Your task to perform on an android device: Open Google Maps and go to "Timeline" Image 0: 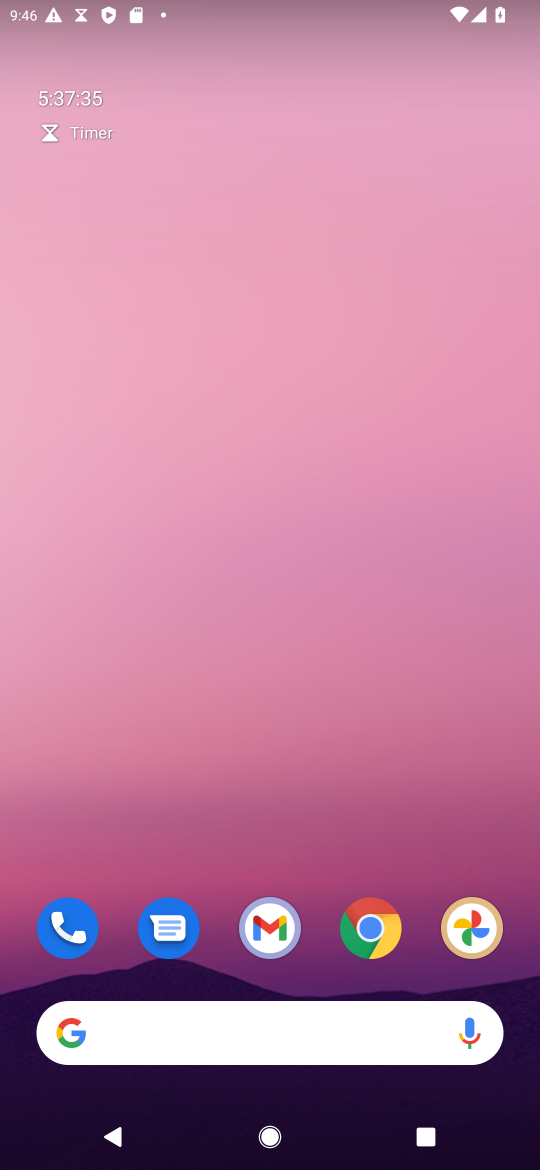
Step 0: press home button
Your task to perform on an android device: Open Google Maps and go to "Timeline" Image 1: 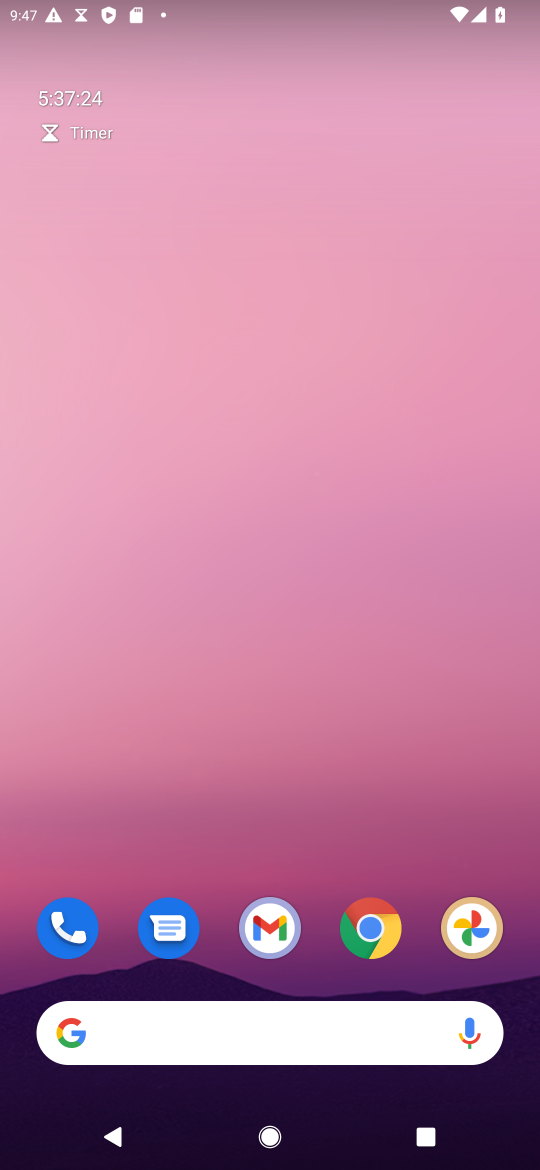
Step 1: drag from (318, 835) to (282, 168)
Your task to perform on an android device: Open Google Maps and go to "Timeline" Image 2: 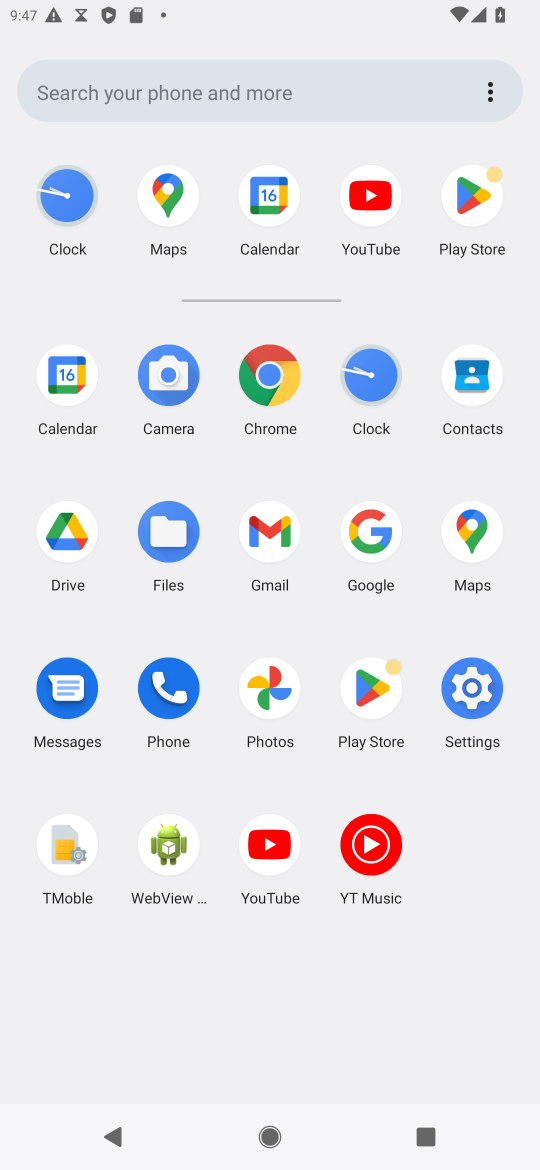
Step 2: click (462, 517)
Your task to perform on an android device: Open Google Maps and go to "Timeline" Image 3: 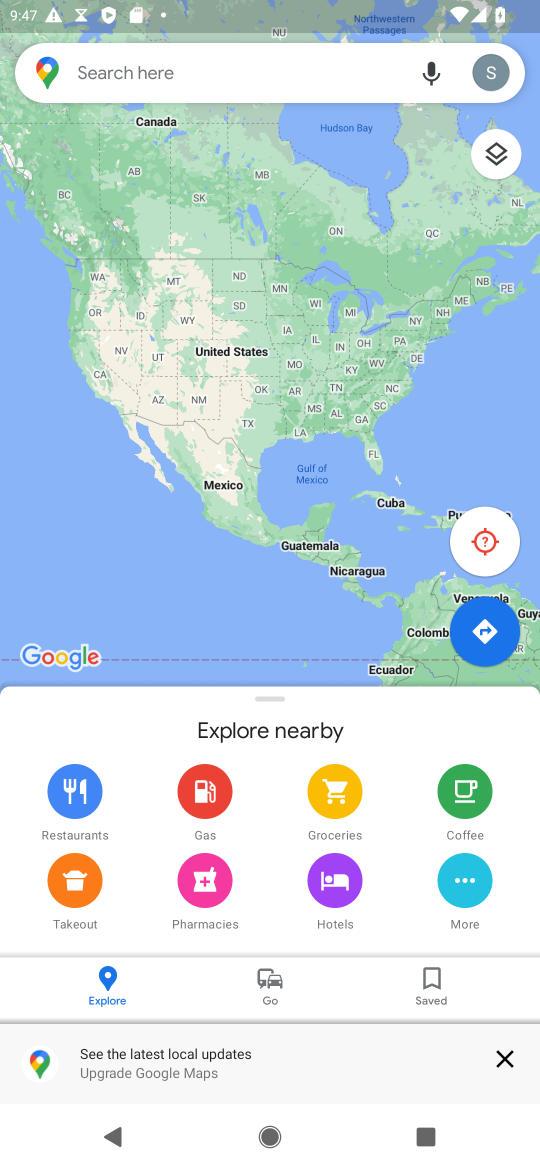
Step 3: click (479, 67)
Your task to perform on an android device: Open Google Maps and go to "Timeline" Image 4: 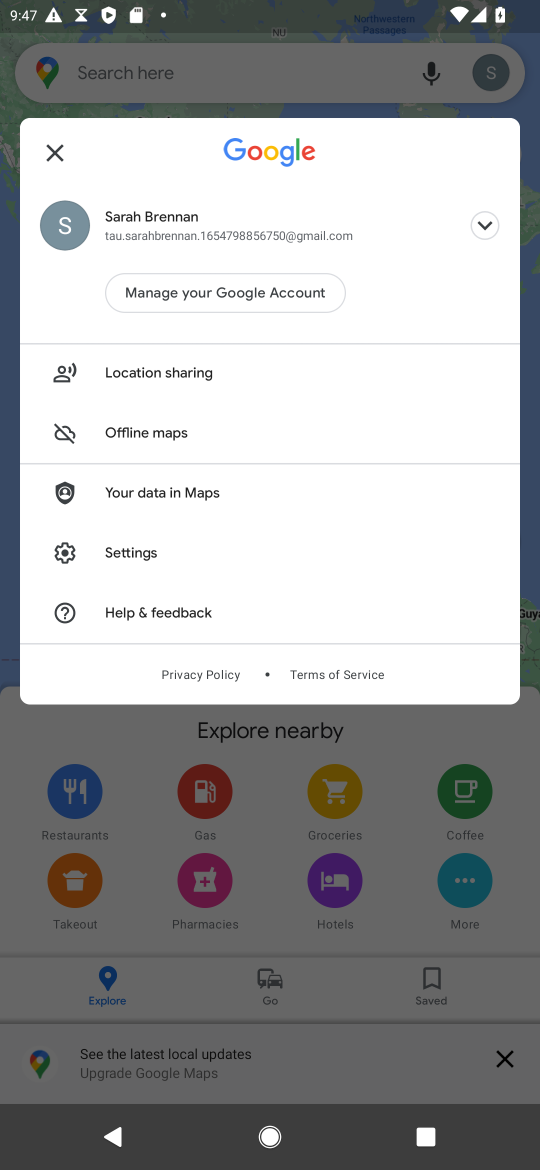
Step 4: click (35, 64)
Your task to perform on an android device: Open Google Maps and go to "Timeline" Image 5: 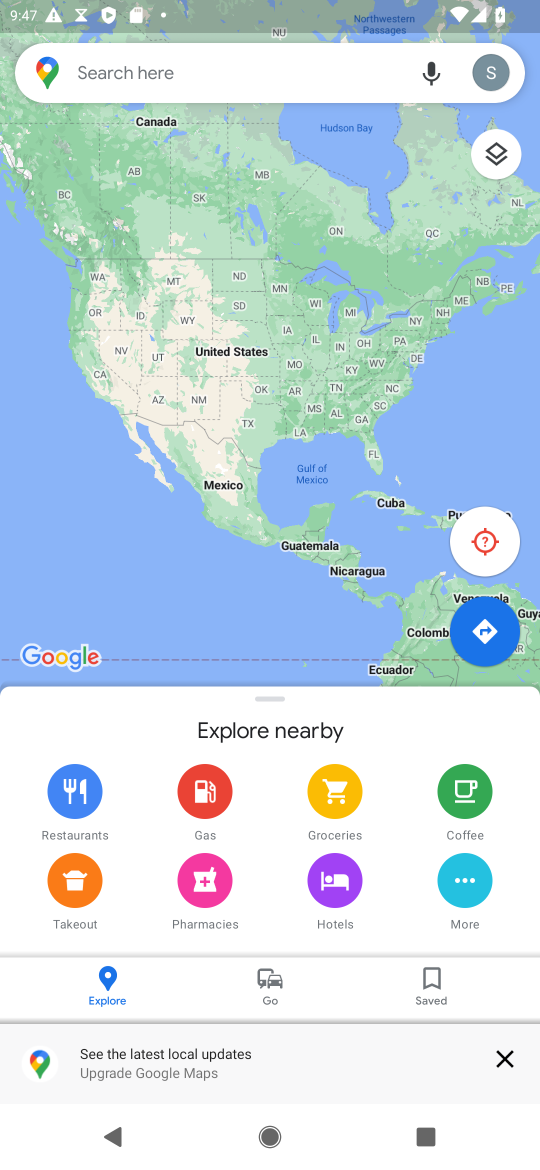
Step 5: click (49, 61)
Your task to perform on an android device: Open Google Maps and go to "Timeline" Image 6: 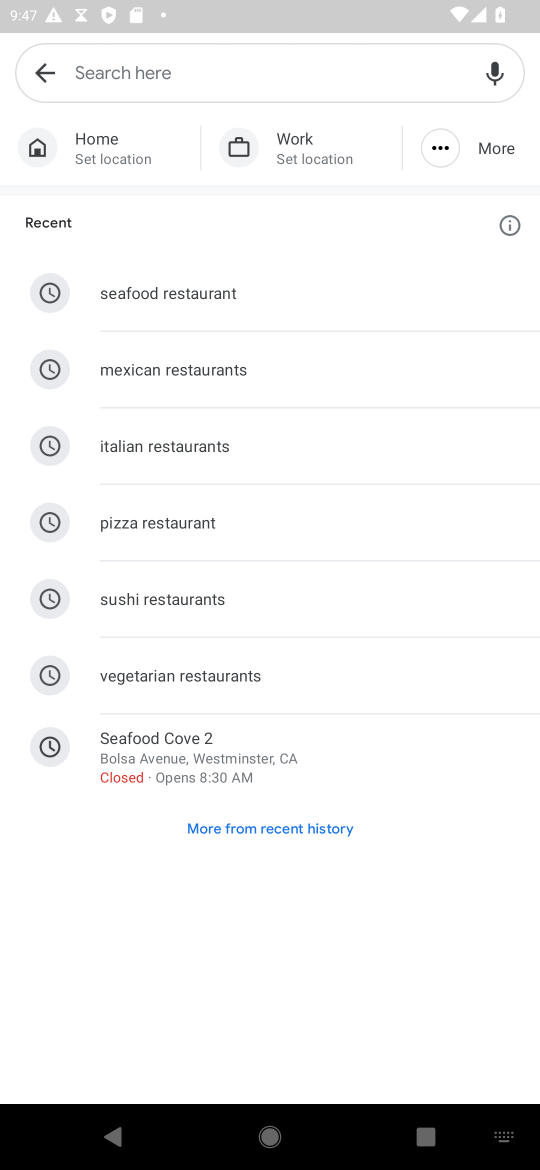
Step 6: press back button
Your task to perform on an android device: Open Google Maps and go to "Timeline" Image 7: 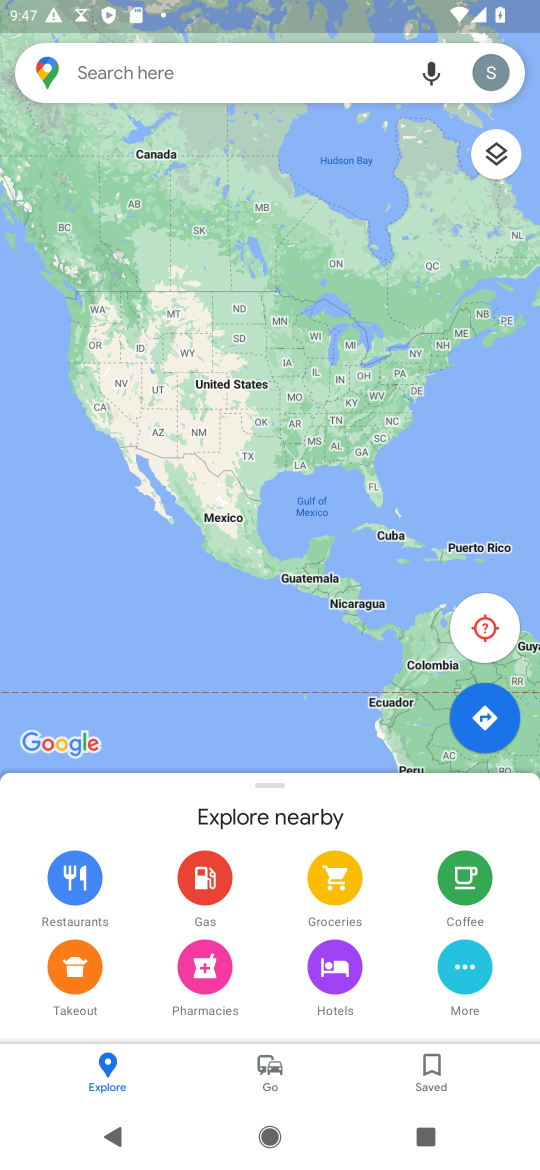
Step 7: click (491, 80)
Your task to perform on an android device: Open Google Maps and go to "Timeline" Image 8: 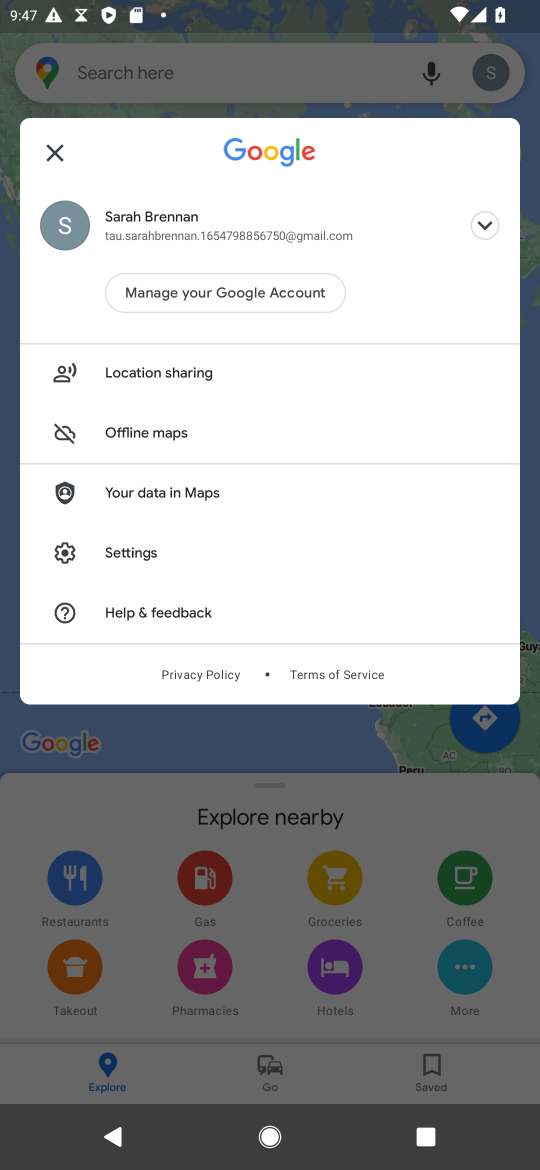
Step 8: task complete